Your task to perform on an android device: Clear the shopping cart on ebay. Search for rayovac triple a on ebay, select the first entry, add it to the cart, then select checkout. Image 0: 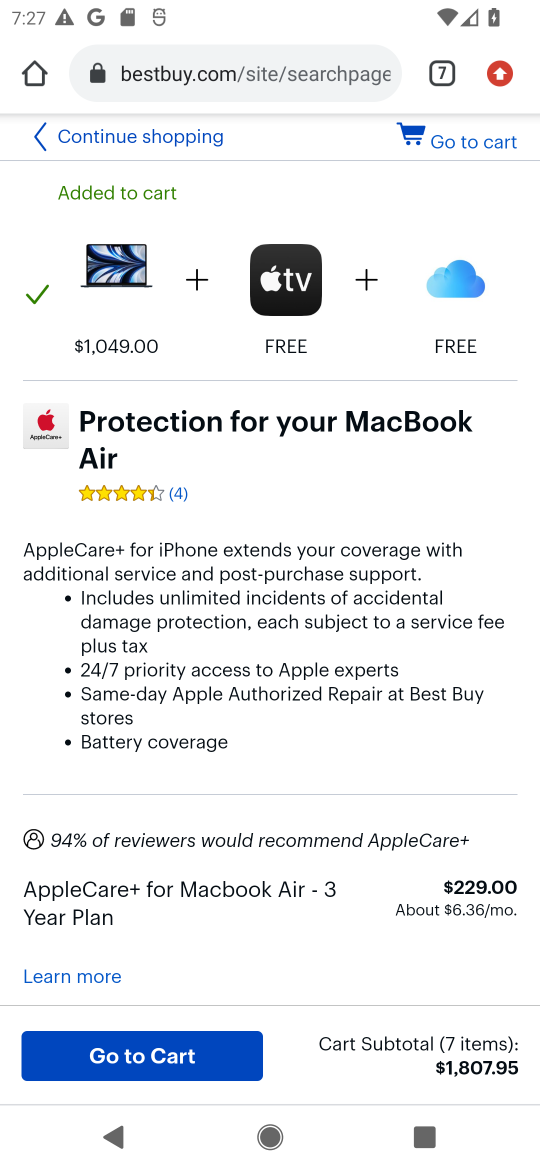
Step 0: press home button
Your task to perform on an android device: Clear the shopping cart on ebay. Search for rayovac triple a on ebay, select the first entry, add it to the cart, then select checkout. Image 1: 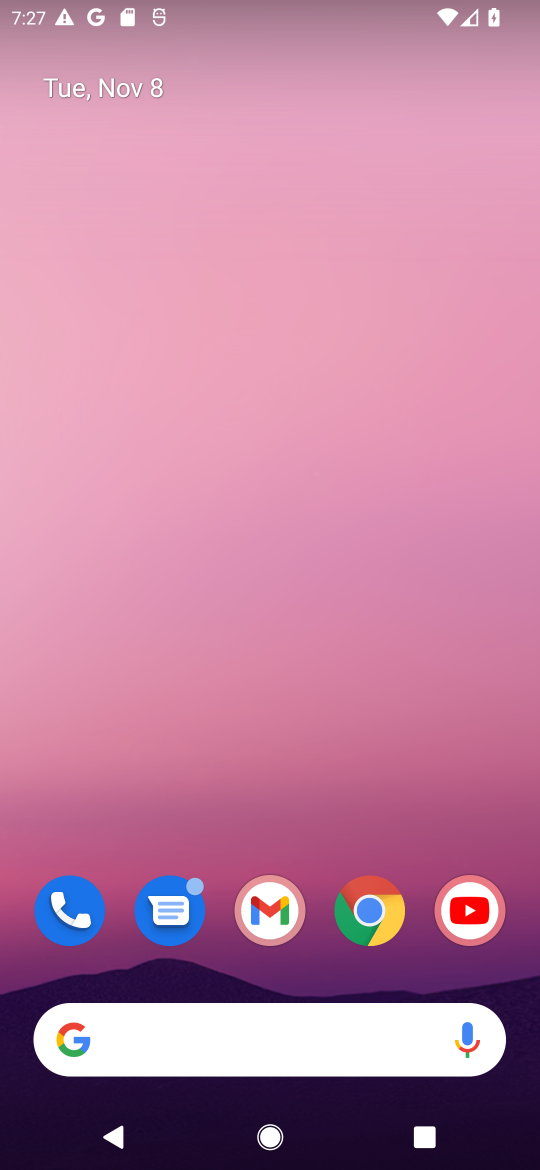
Step 1: click (359, 901)
Your task to perform on an android device: Clear the shopping cart on ebay. Search for rayovac triple a on ebay, select the first entry, add it to the cart, then select checkout. Image 2: 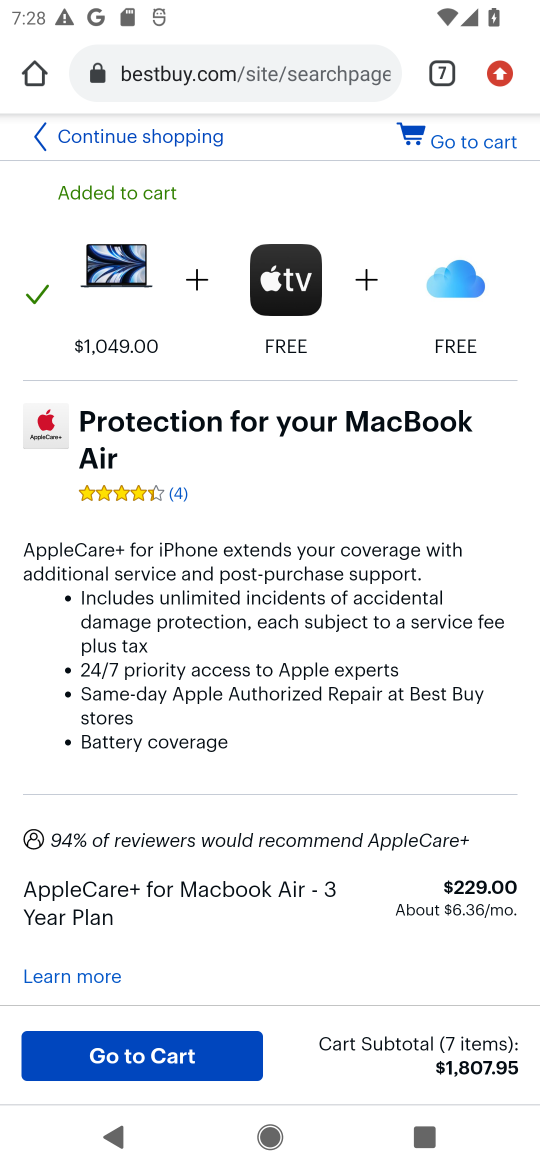
Step 2: click (439, 66)
Your task to perform on an android device: Clear the shopping cart on ebay. Search for rayovac triple a on ebay, select the first entry, add it to the cart, then select checkout. Image 3: 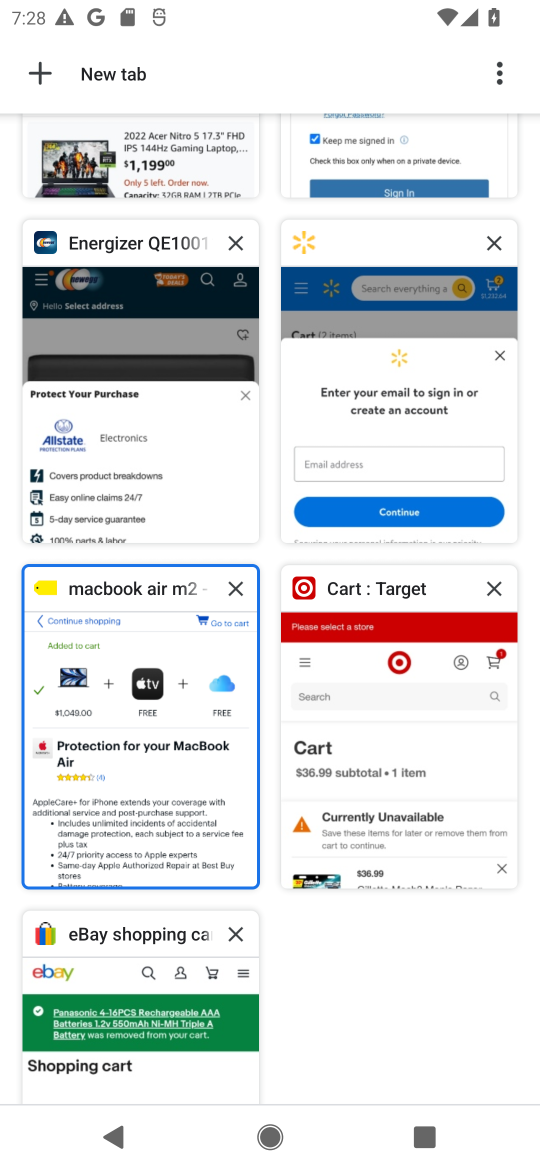
Step 3: click (141, 1020)
Your task to perform on an android device: Clear the shopping cart on ebay. Search for rayovac triple a on ebay, select the first entry, add it to the cart, then select checkout. Image 4: 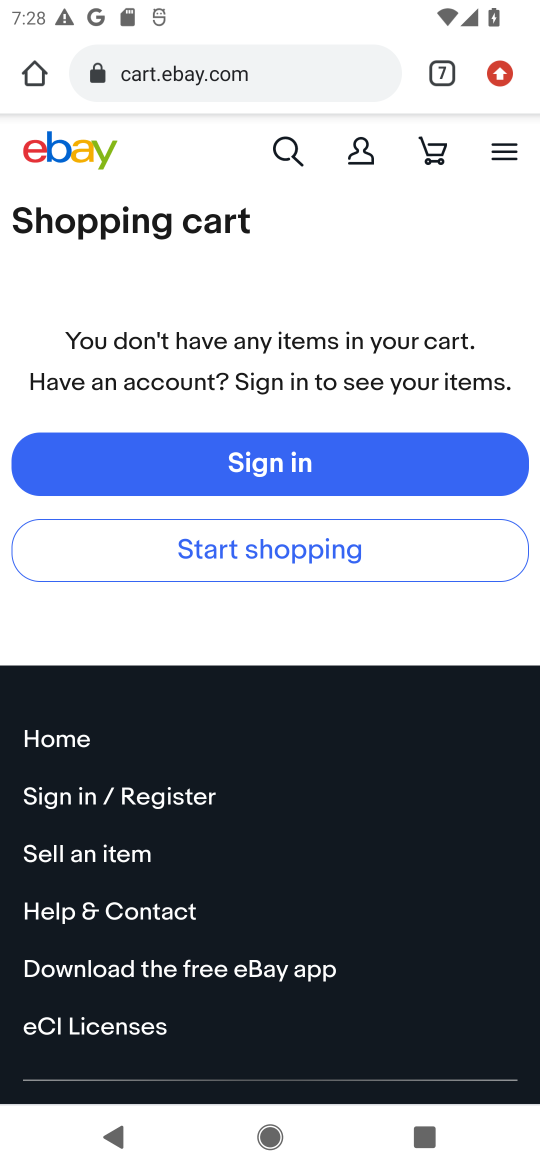
Step 4: click (283, 143)
Your task to perform on an android device: Clear the shopping cart on ebay. Search for rayovac triple a on ebay, select the first entry, add it to the cart, then select checkout. Image 5: 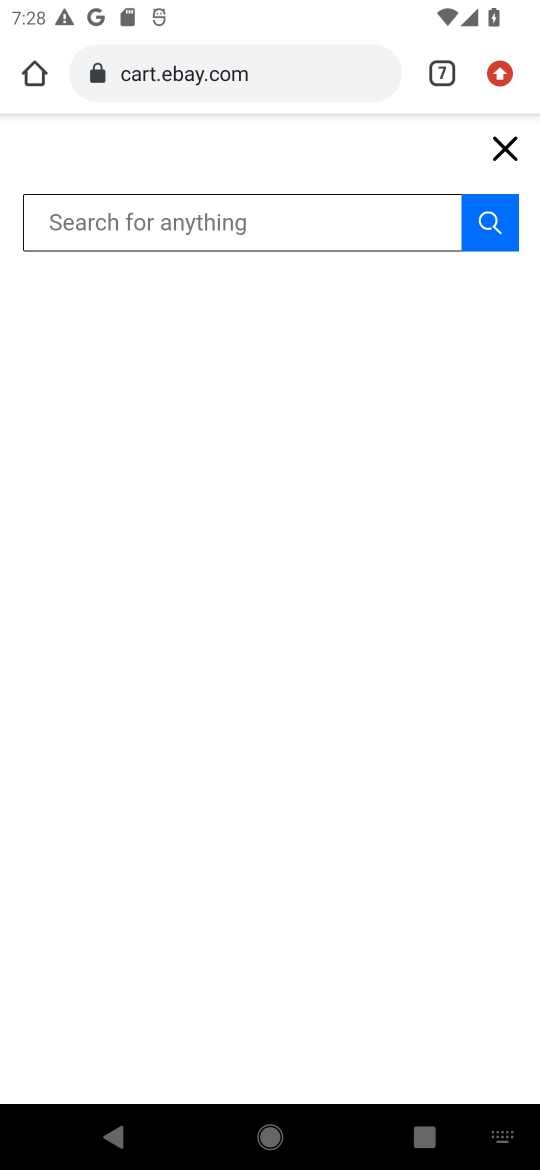
Step 5: type "macbook air "
Your task to perform on an android device: Clear the shopping cart on ebay. Search for rayovac triple a on ebay, select the first entry, add it to the cart, then select checkout. Image 6: 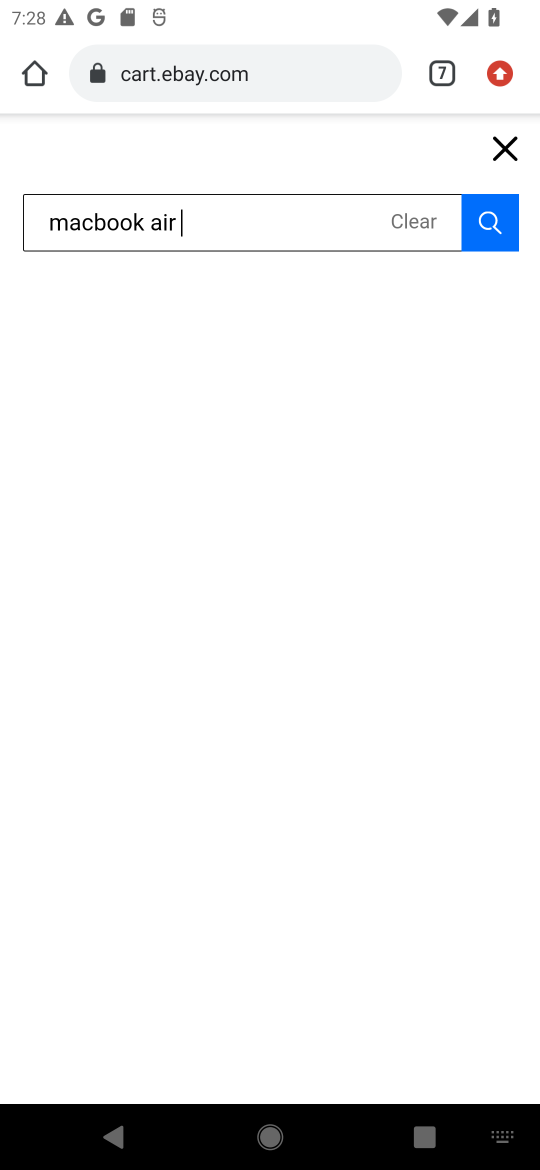
Step 6: click (426, 223)
Your task to perform on an android device: Clear the shopping cart on ebay. Search for rayovac triple a on ebay, select the first entry, add it to the cart, then select checkout. Image 7: 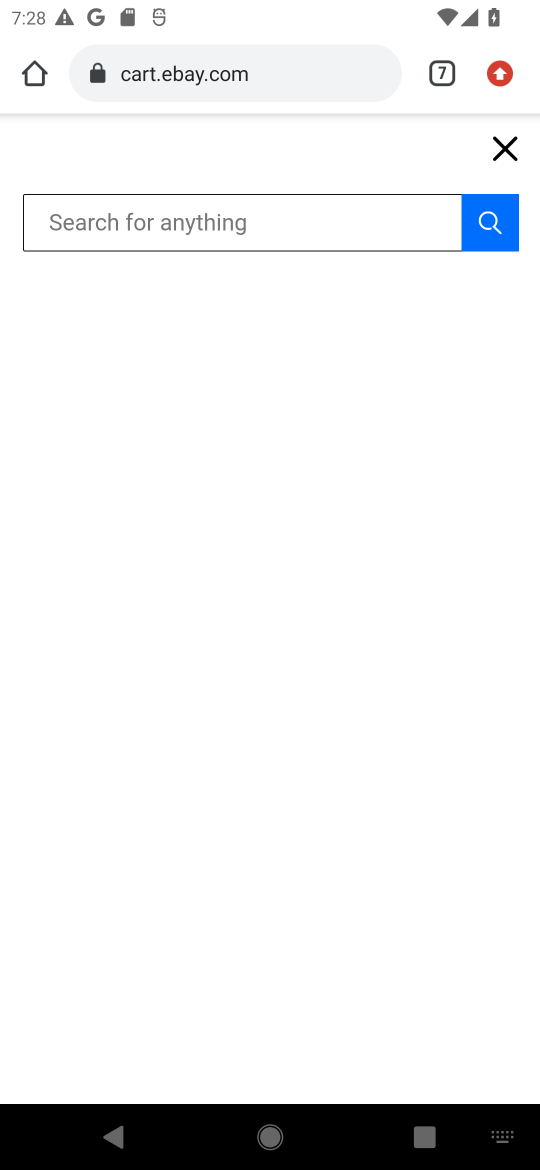
Step 7: type "rayovac triple a battery"
Your task to perform on an android device: Clear the shopping cart on ebay. Search for rayovac triple a on ebay, select the first entry, add it to the cart, then select checkout. Image 8: 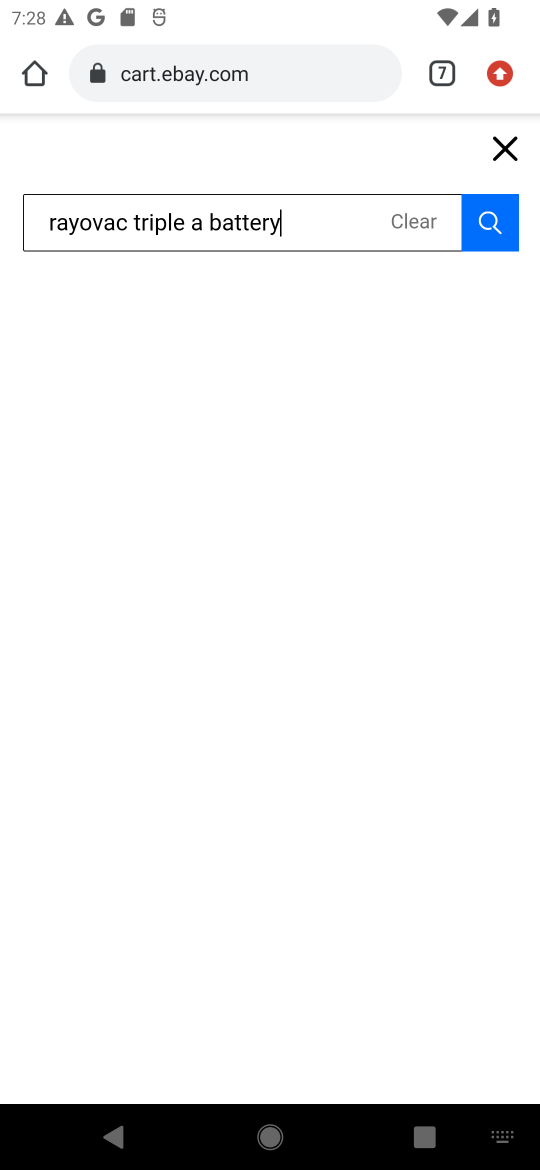
Step 8: click (491, 217)
Your task to perform on an android device: Clear the shopping cart on ebay. Search for rayovac triple a on ebay, select the first entry, add it to the cart, then select checkout. Image 9: 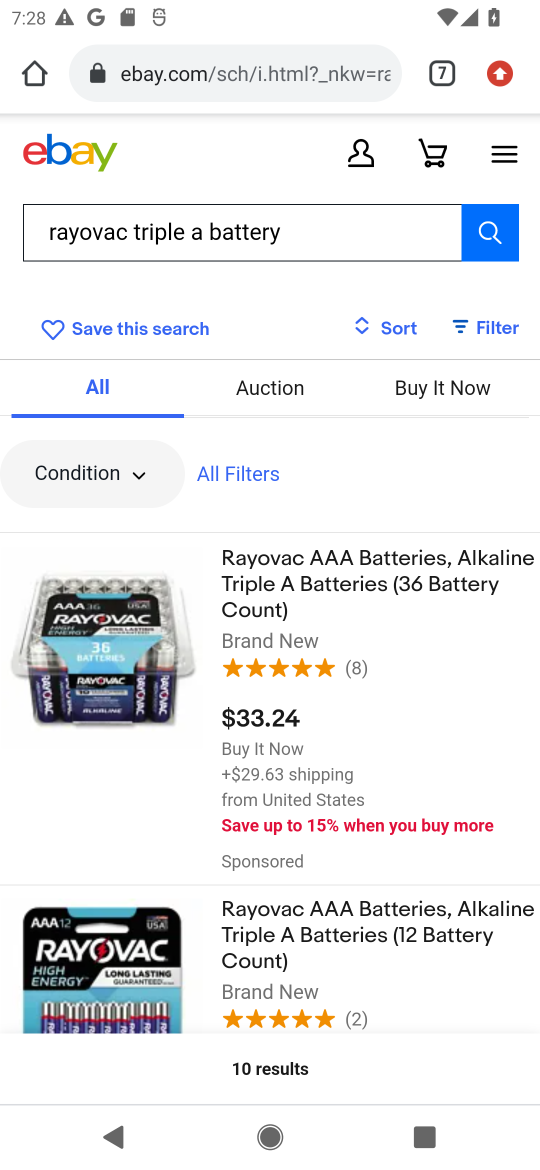
Step 9: click (349, 588)
Your task to perform on an android device: Clear the shopping cart on ebay. Search for rayovac triple a on ebay, select the first entry, add it to the cart, then select checkout. Image 10: 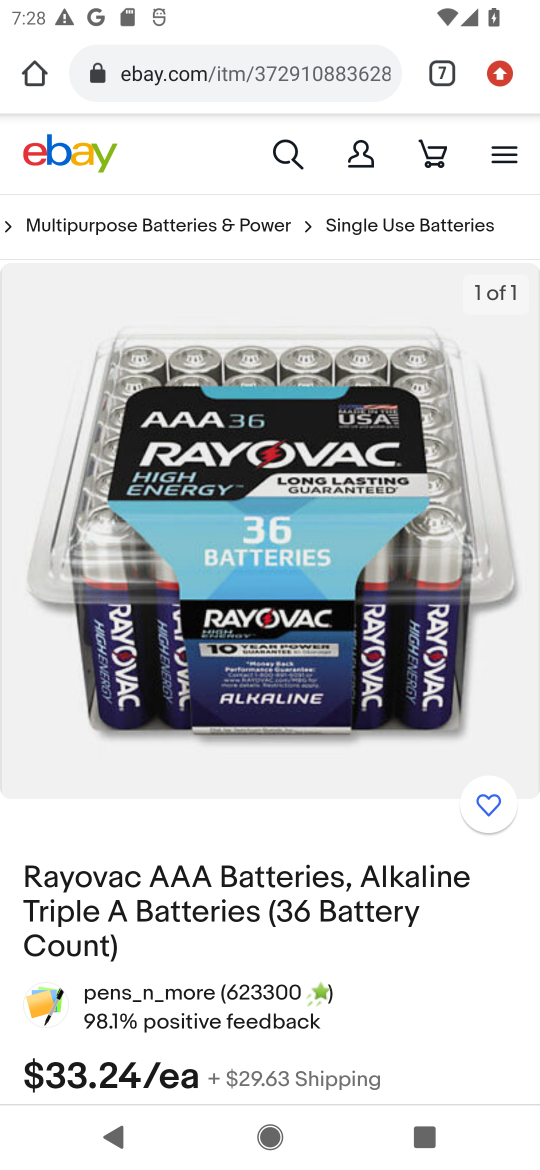
Step 10: drag from (235, 948) to (469, 334)
Your task to perform on an android device: Clear the shopping cart on ebay. Search for rayovac triple a on ebay, select the first entry, add it to the cart, then select checkout. Image 11: 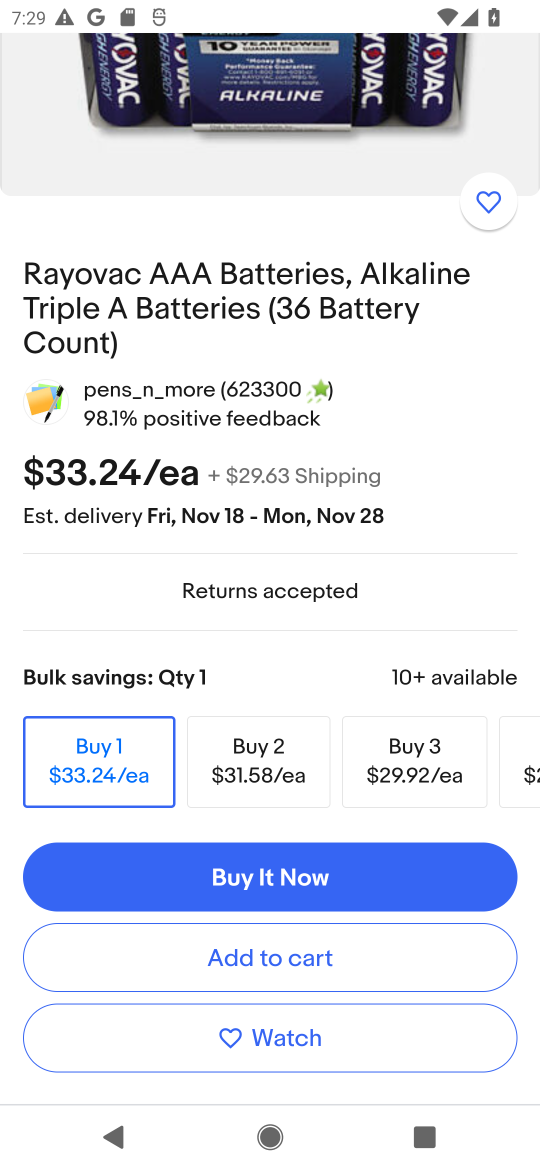
Step 11: click (285, 969)
Your task to perform on an android device: Clear the shopping cart on ebay. Search for rayovac triple a on ebay, select the first entry, add it to the cart, then select checkout. Image 12: 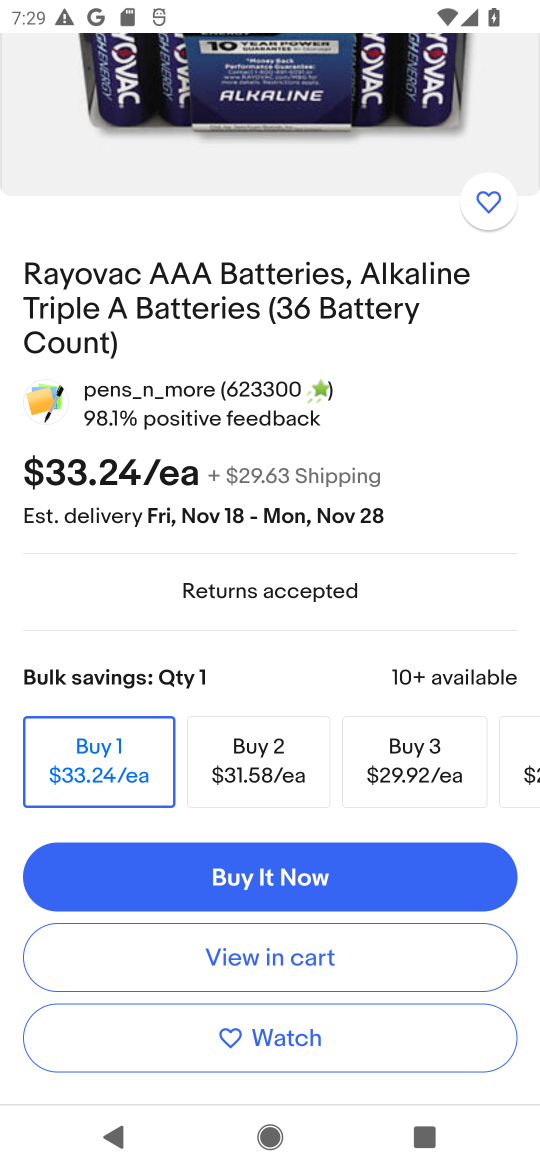
Step 12: click (303, 962)
Your task to perform on an android device: Clear the shopping cart on ebay. Search for rayovac triple a on ebay, select the first entry, add it to the cart, then select checkout. Image 13: 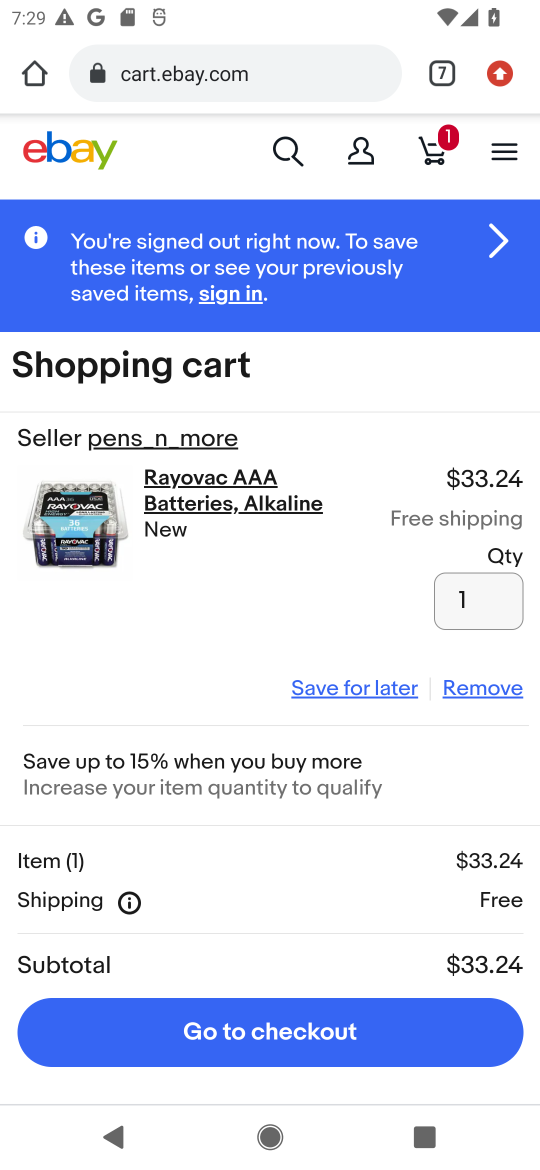
Step 13: task complete